Your task to perform on an android device: turn on notifications settings in the gmail app Image 0: 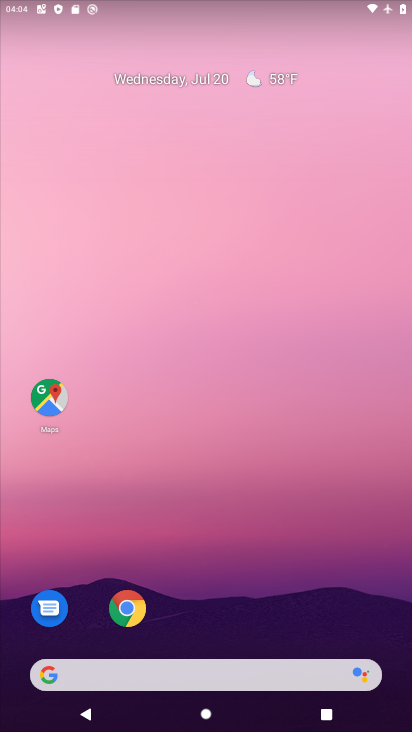
Step 0: drag from (215, 642) to (214, 13)
Your task to perform on an android device: turn on notifications settings in the gmail app Image 1: 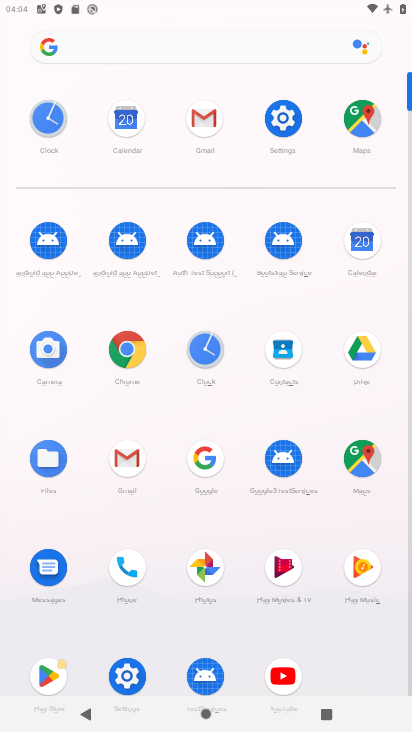
Step 1: click (213, 124)
Your task to perform on an android device: turn on notifications settings in the gmail app Image 2: 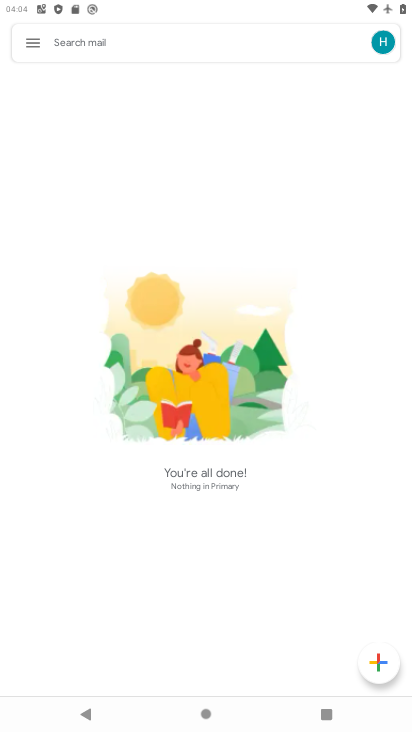
Step 2: task complete